Your task to perform on an android device: find which apps use the phone's location Image 0: 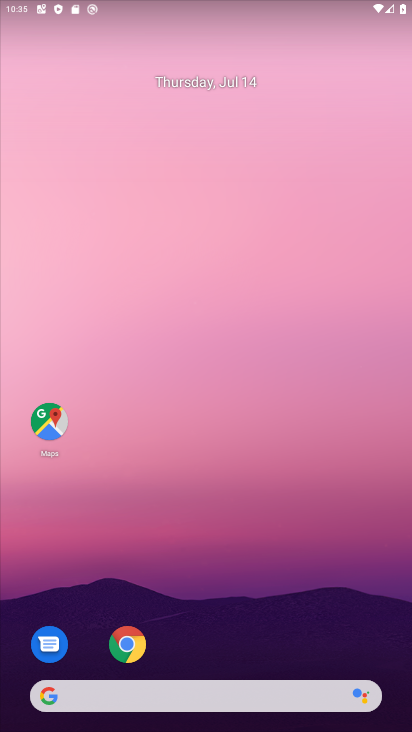
Step 0: drag from (206, 696) to (197, 4)
Your task to perform on an android device: find which apps use the phone's location Image 1: 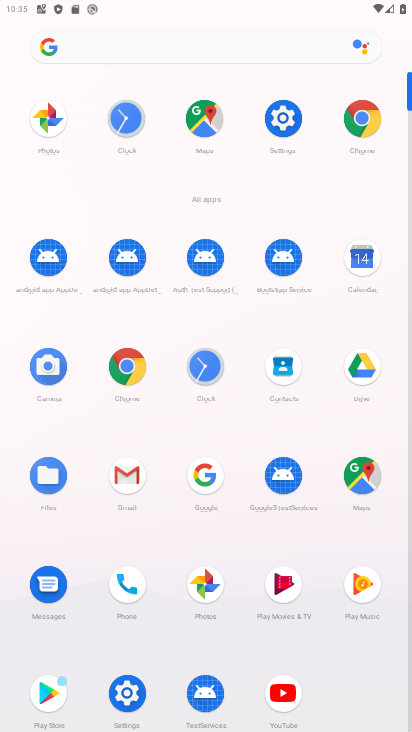
Step 1: click (123, 694)
Your task to perform on an android device: find which apps use the phone's location Image 2: 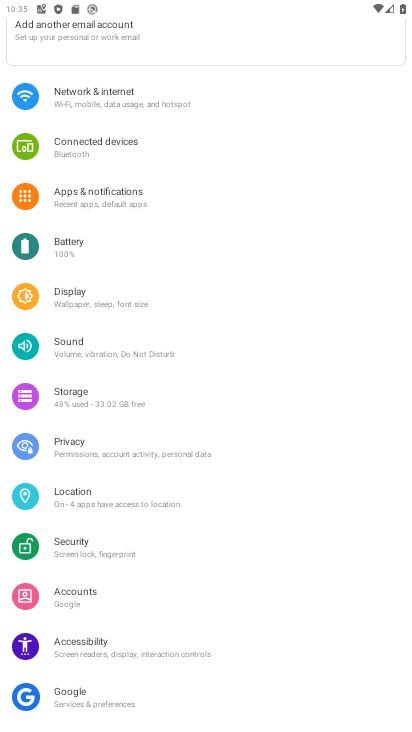
Step 2: click (86, 494)
Your task to perform on an android device: find which apps use the phone's location Image 3: 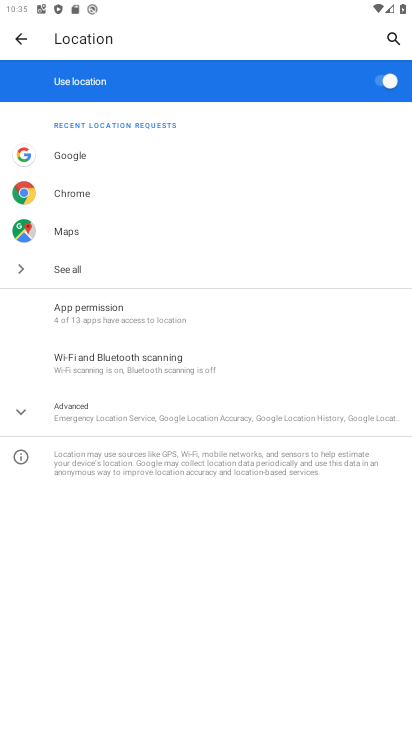
Step 3: click (109, 307)
Your task to perform on an android device: find which apps use the phone's location Image 4: 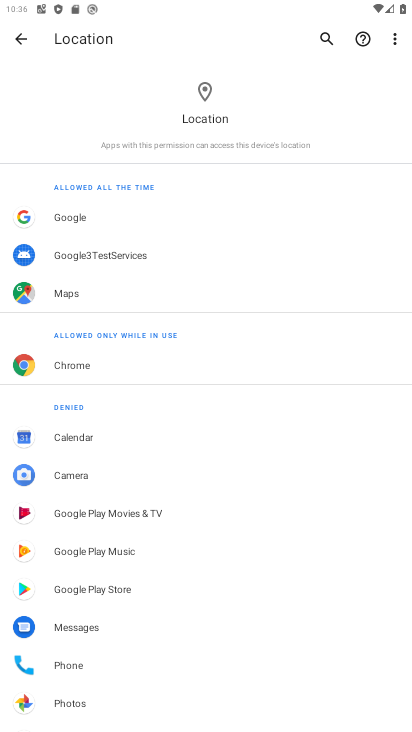
Step 4: task complete